Your task to perform on an android device: Open eBay Image 0: 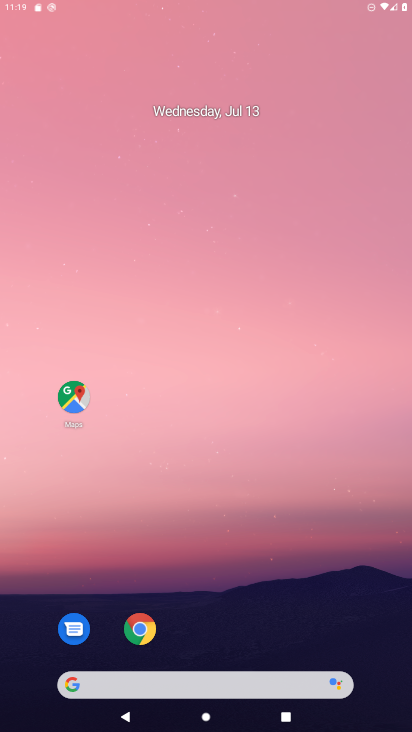
Step 0: press home button
Your task to perform on an android device: Open eBay Image 1: 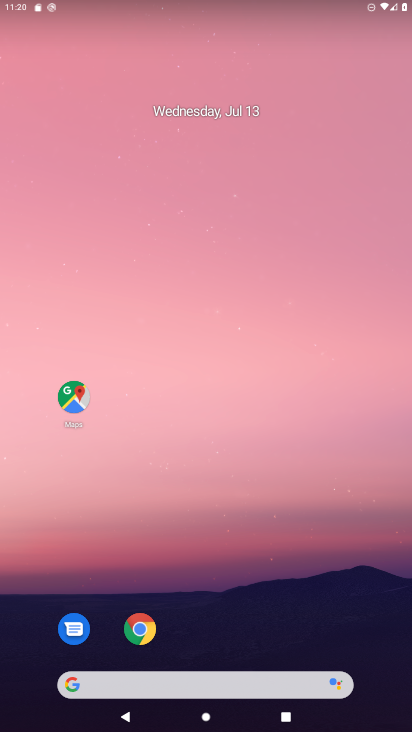
Step 1: click (144, 628)
Your task to perform on an android device: Open eBay Image 2: 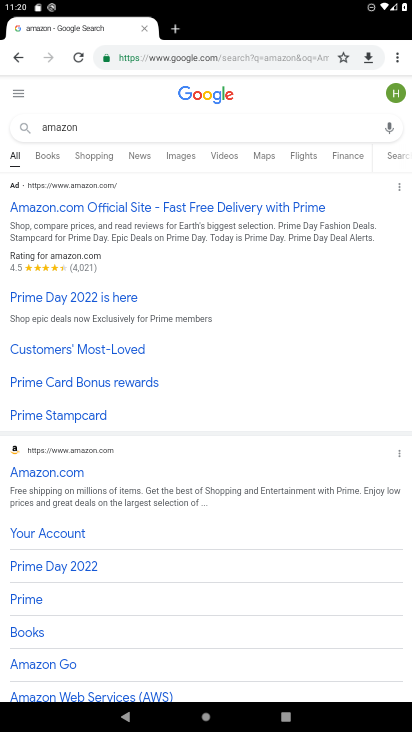
Step 2: click (276, 61)
Your task to perform on an android device: Open eBay Image 3: 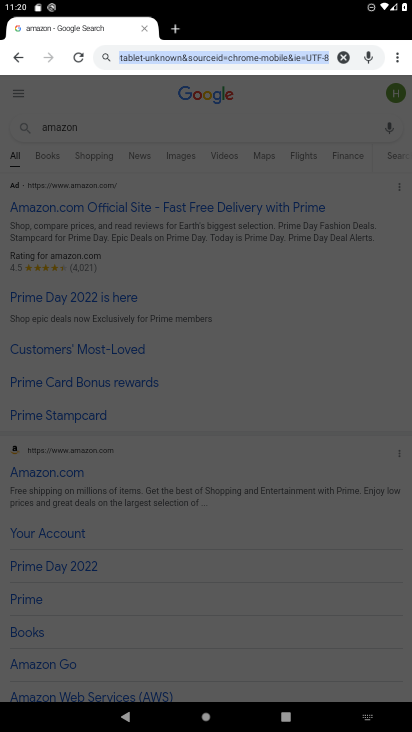
Step 3: click (343, 52)
Your task to perform on an android device: Open eBay Image 4: 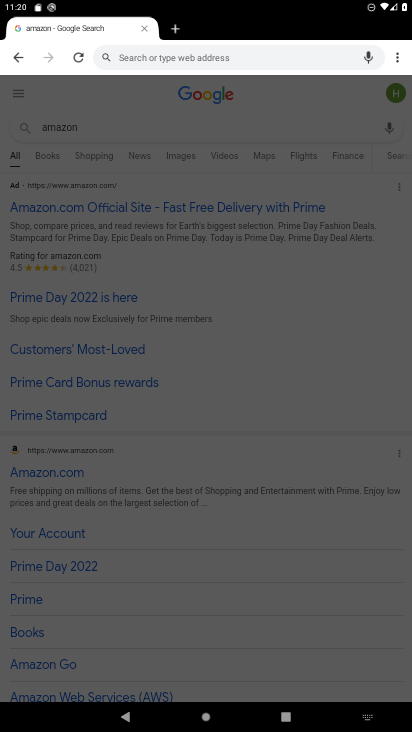
Step 4: type "eBay"
Your task to perform on an android device: Open eBay Image 5: 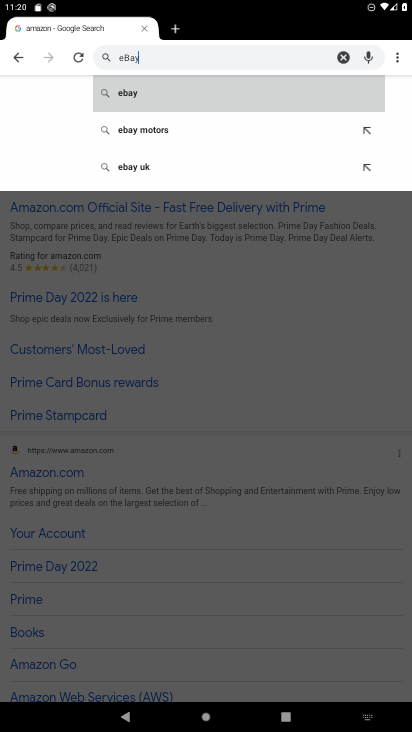
Step 5: click (141, 103)
Your task to perform on an android device: Open eBay Image 6: 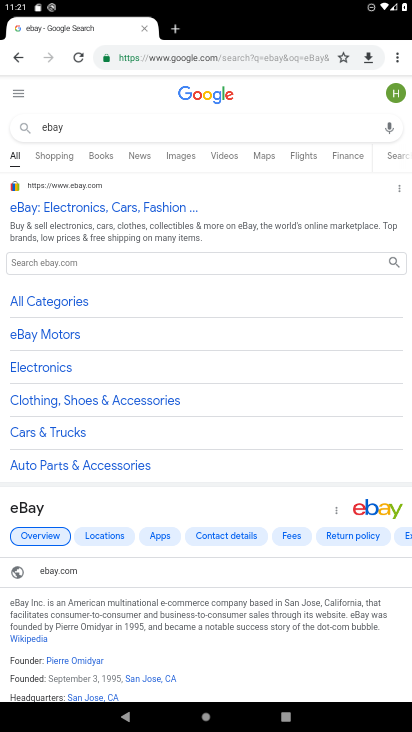
Step 6: task complete